Your task to perform on an android device: Open calendar and show me the fourth week of next month Image 0: 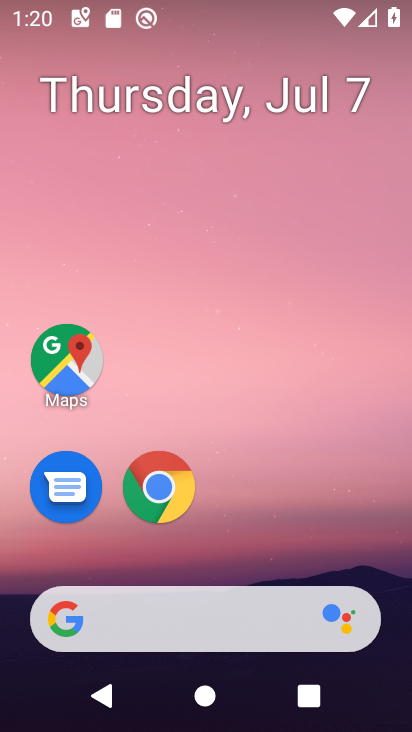
Step 0: drag from (367, 554) to (355, 93)
Your task to perform on an android device: Open calendar and show me the fourth week of next month Image 1: 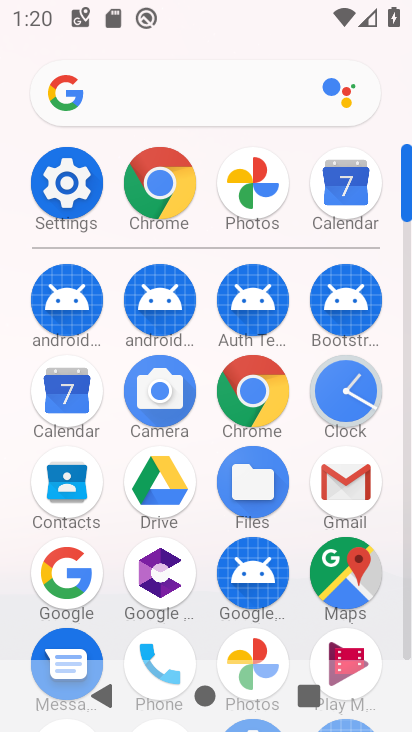
Step 1: click (76, 395)
Your task to perform on an android device: Open calendar and show me the fourth week of next month Image 2: 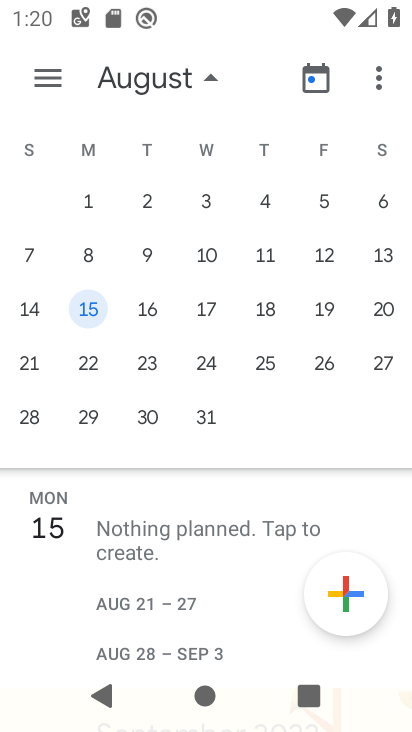
Step 2: click (94, 364)
Your task to perform on an android device: Open calendar and show me the fourth week of next month Image 3: 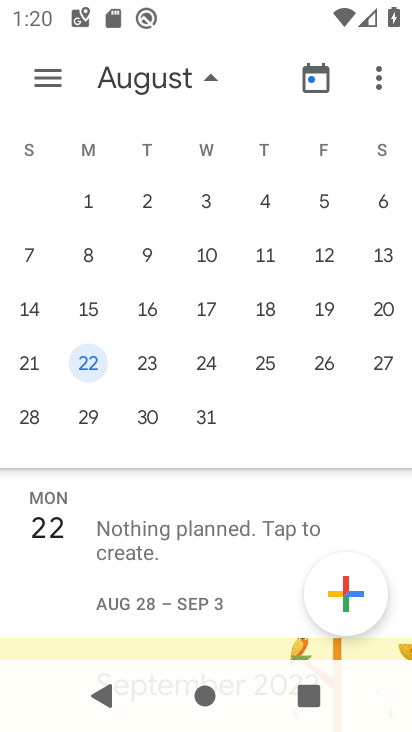
Step 3: task complete